Your task to perform on an android device: search for starred emails in the gmail app Image 0: 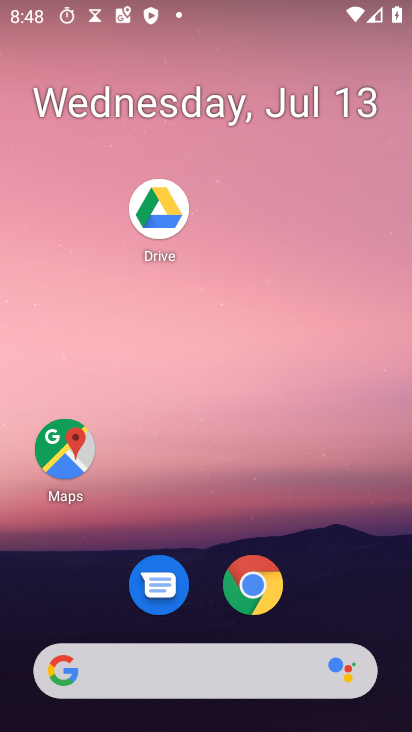
Step 0: drag from (210, 673) to (282, 339)
Your task to perform on an android device: search for starred emails in the gmail app Image 1: 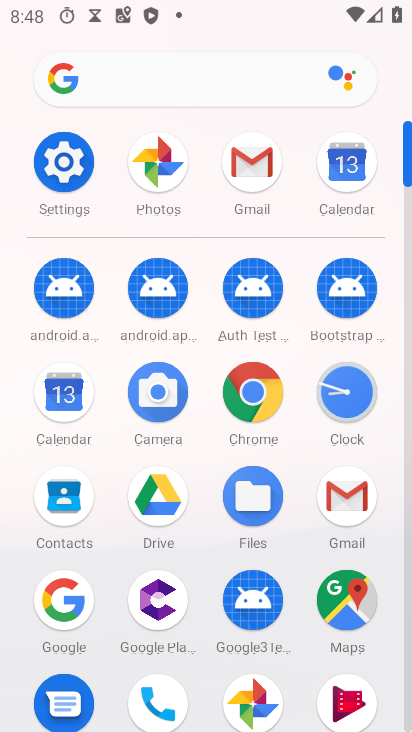
Step 1: click (268, 160)
Your task to perform on an android device: search for starred emails in the gmail app Image 2: 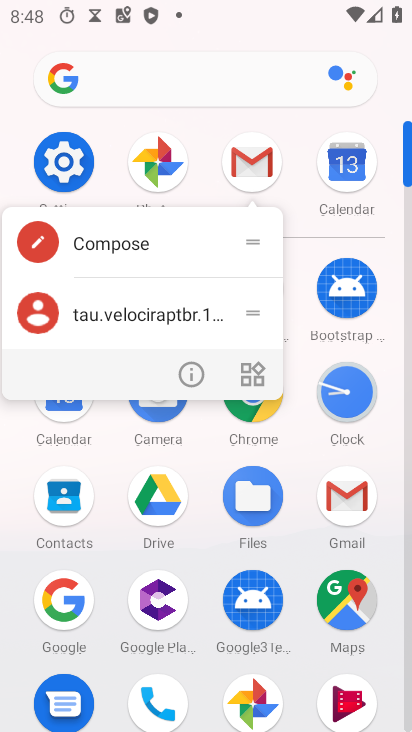
Step 2: click (261, 164)
Your task to perform on an android device: search for starred emails in the gmail app Image 3: 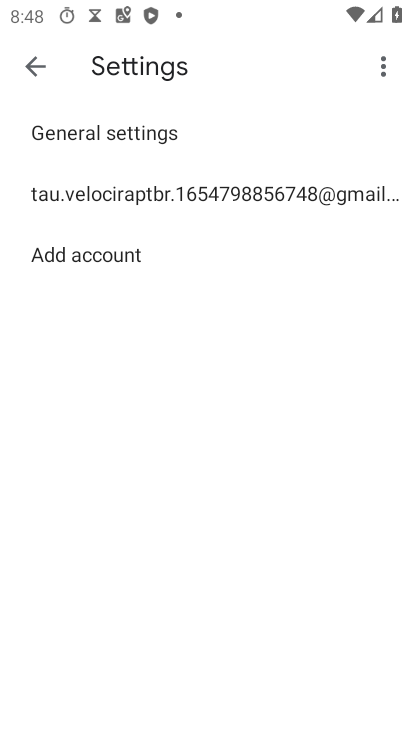
Step 3: click (29, 60)
Your task to perform on an android device: search for starred emails in the gmail app Image 4: 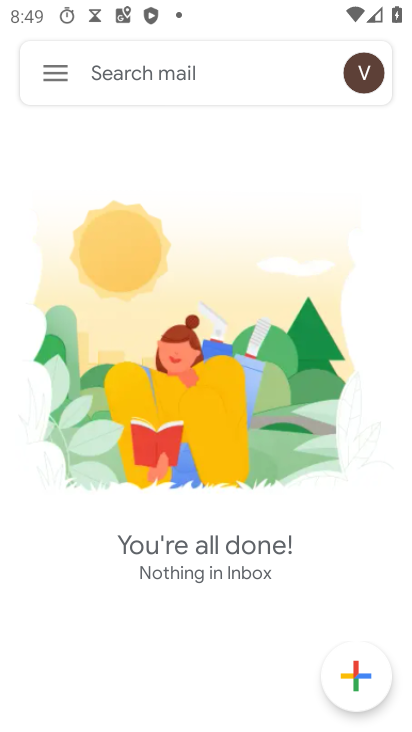
Step 4: click (56, 80)
Your task to perform on an android device: search for starred emails in the gmail app Image 5: 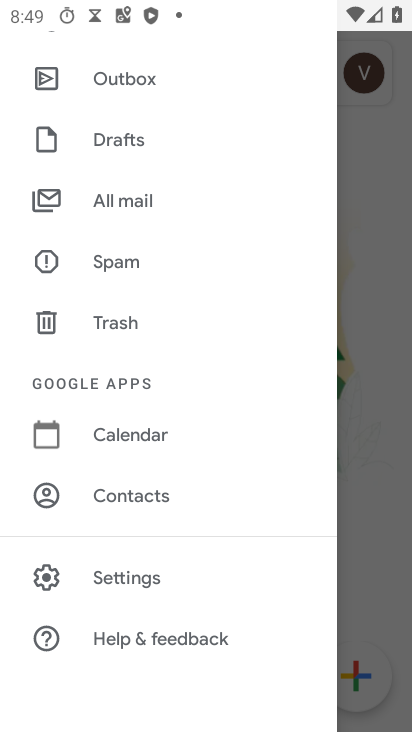
Step 5: drag from (237, 116) to (206, 507)
Your task to perform on an android device: search for starred emails in the gmail app Image 6: 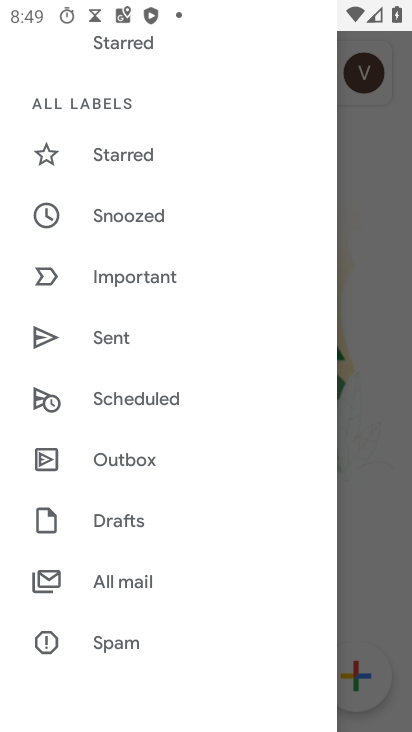
Step 6: click (121, 148)
Your task to perform on an android device: search for starred emails in the gmail app Image 7: 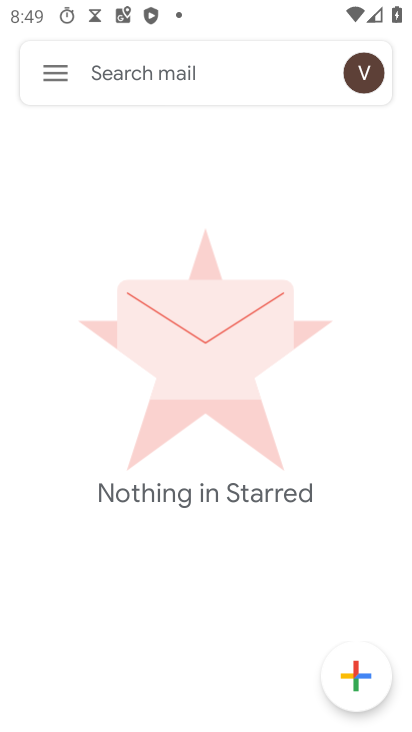
Step 7: task complete